Your task to perform on an android device: Open Youtube and go to "Your channel" Image 0: 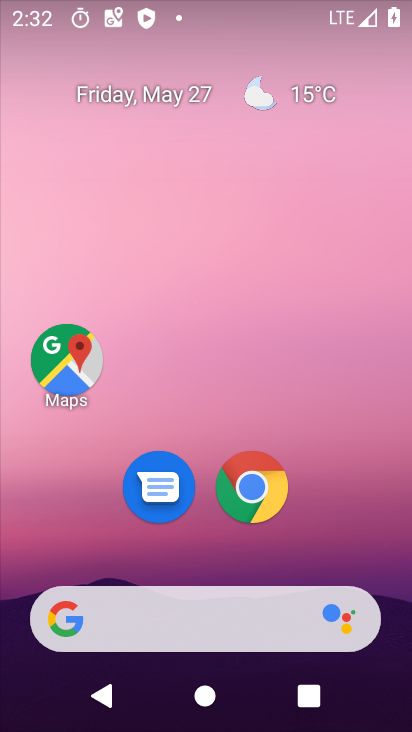
Step 0: drag from (342, 422) to (332, 117)
Your task to perform on an android device: Open Youtube and go to "Your channel" Image 1: 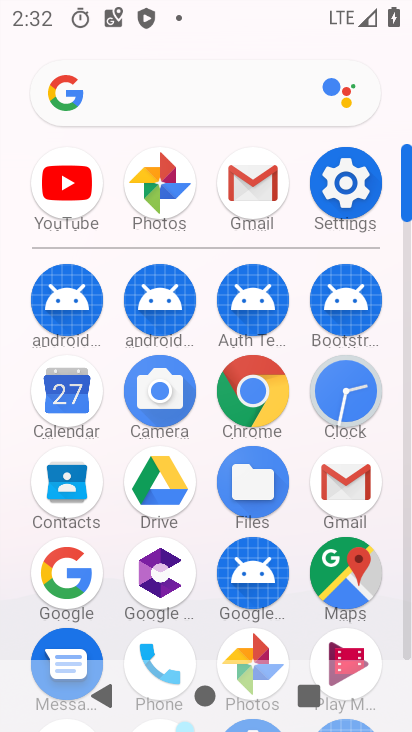
Step 1: click (73, 188)
Your task to perform on an android device: Open Youtube and go to "Your channel" Image 2: 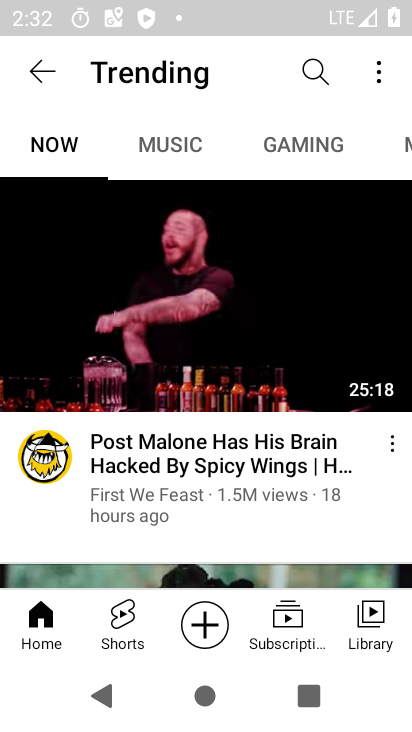
Step 2: click (37, 62)
Your task to perform on an android device: Open Youtube and go to "Your channel" Image 3: 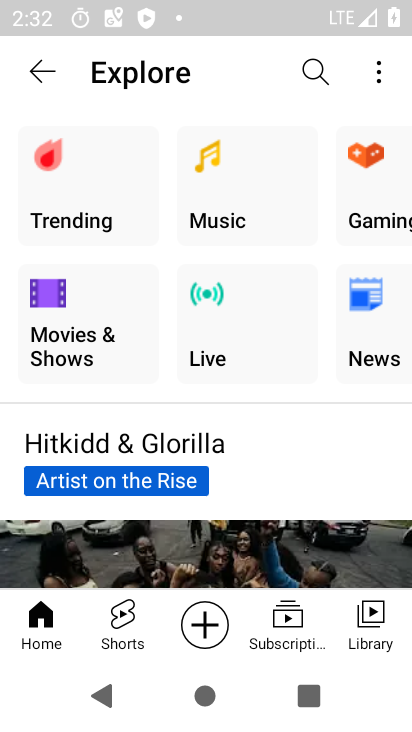
Step 3: click (44, 66)
Your task to perform on an android device: Open Youtube and go to "Your channel" Image 4: 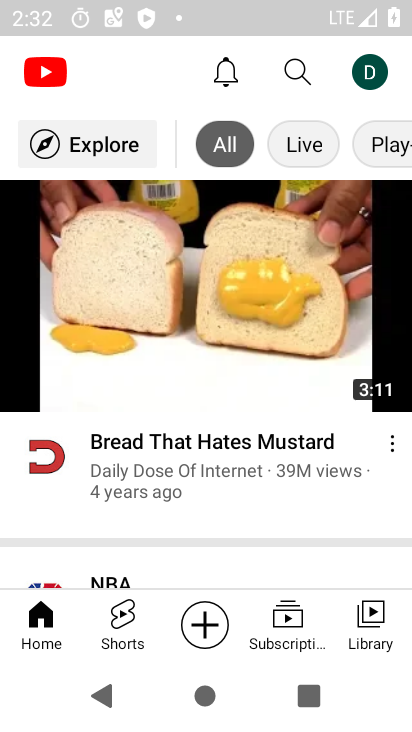
Step 4: click (365, 63)
Your task to perform on an android device: Open Youtube and go to "Your channel" Image 5: 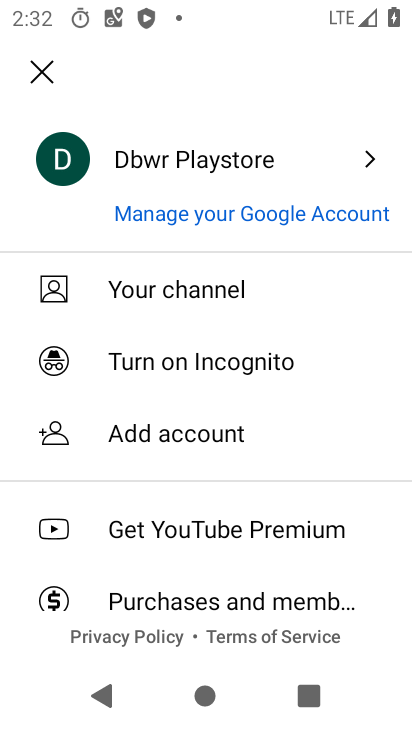
Step 5: click (169, 286)
Your task to perform on an android device: Open Youtube and go to "Your channel" Image 6: 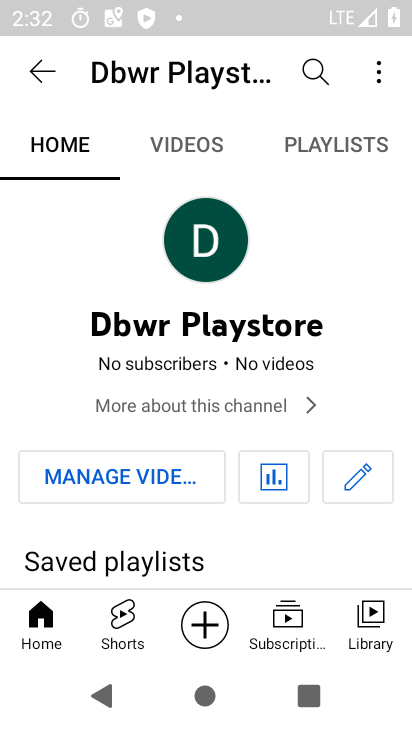
Step 6: task complete